Your task to perform on an android device: turn pop-ups off in chrome Image 0: 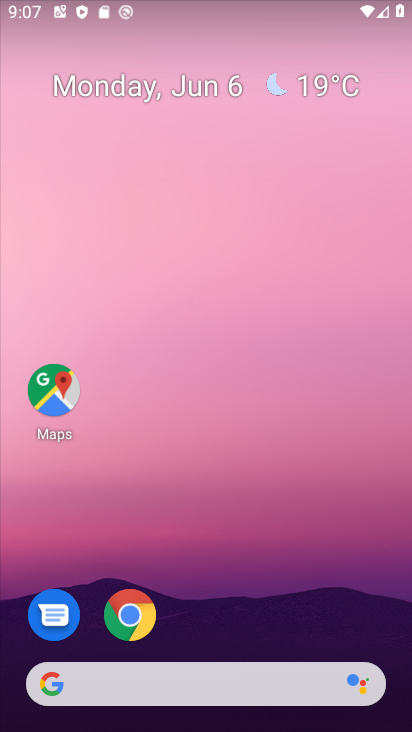
Step 0: click (124, 605)
Your task to perform on an android device: turn pop-ups off in chrome Image 1: 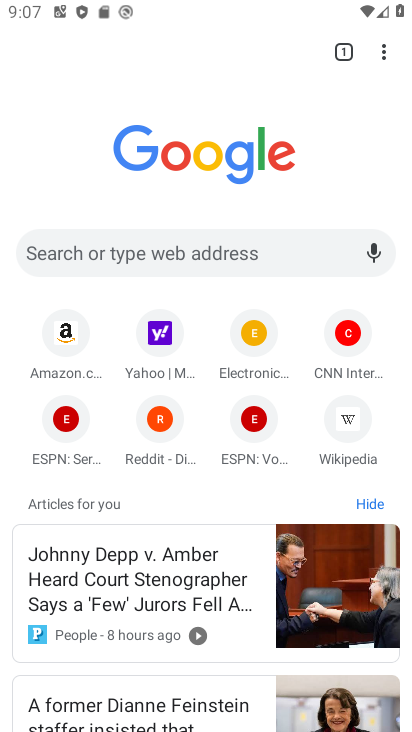
Step 1: click (385, 51)
Your task to perform on an android device: turn pop-ups off in chrome Image 2: 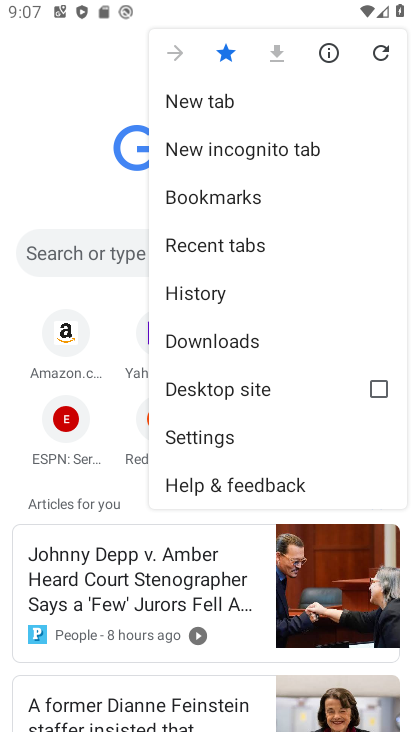
Step 2: click (239, 439)
Your task to perform on an android device: turn pop-ups off in chrome Image 3: 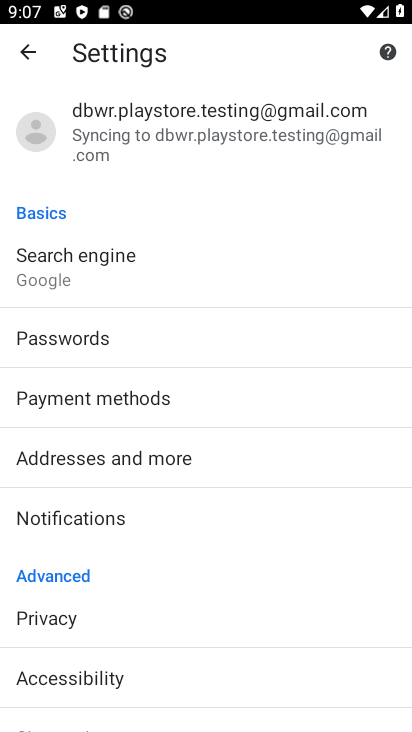
Step 3: drag from (127, 598) to (81, 32)
Your task to perform on an android device: turn pop-ups off in chrome Image 4: 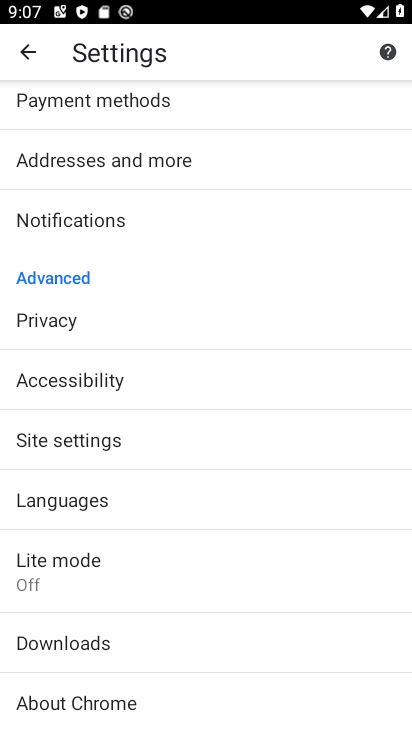
Step 4: click (78, 451)
Your task to perform on an android device: turn pop-ups off in chrome Image 5: 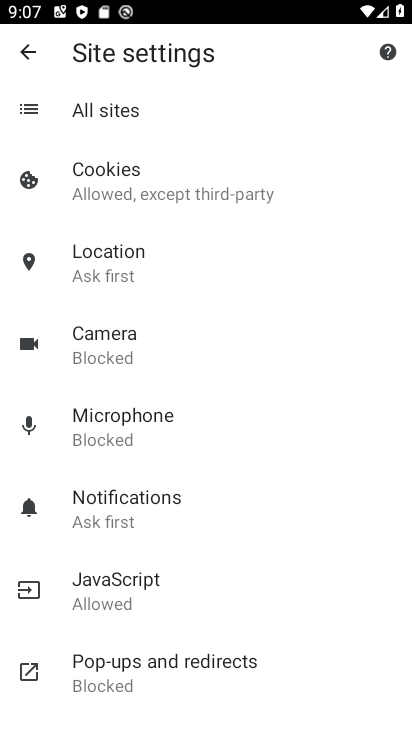
Step 5: click (111, 645)
Your task to perform on an android device: turn pop-ups off in chrome Image 6: 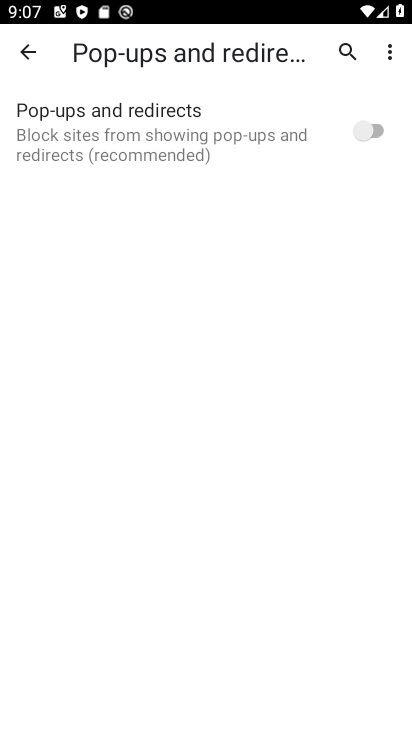
Step 6: task complete